Your task to perform on an android device: turn notification dots on Image 0: 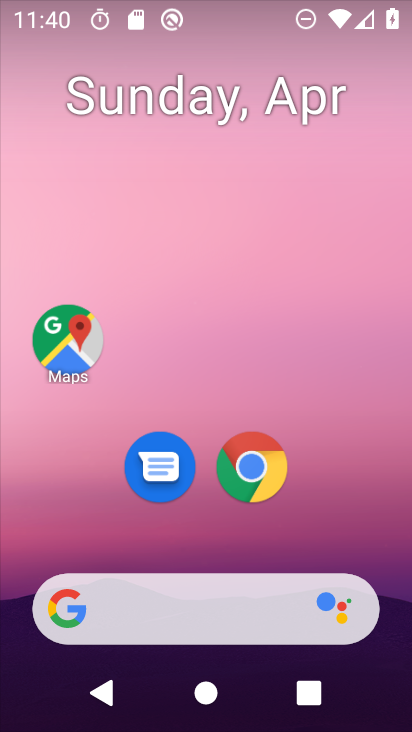
Step 0: drag from (361, 529) to (360, 102)
Your task to perform on an android device: turn notification dots on Image 1: 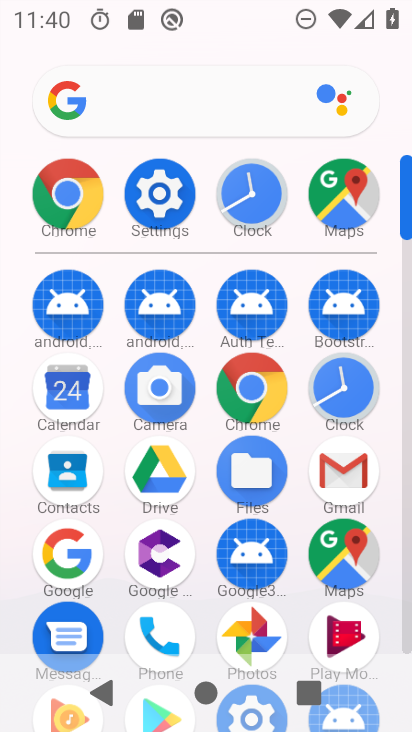
Step 1: click (159, 186)
Your task to perform on an android device: turn notification dots on Image 2: 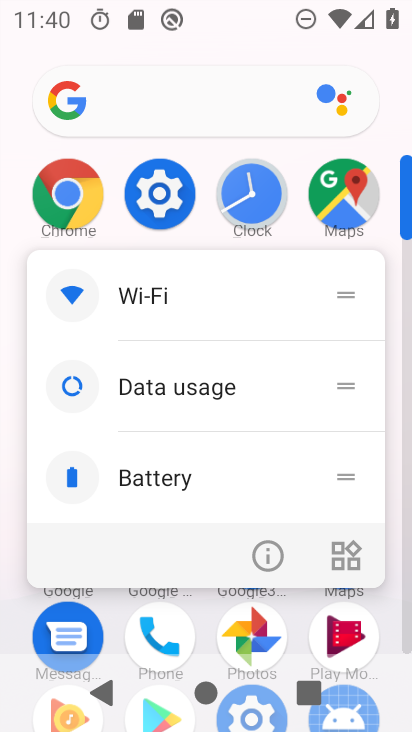
Step 2: click (159, 186)
Your task to perform on an android device: turn notification dots on Image 3: 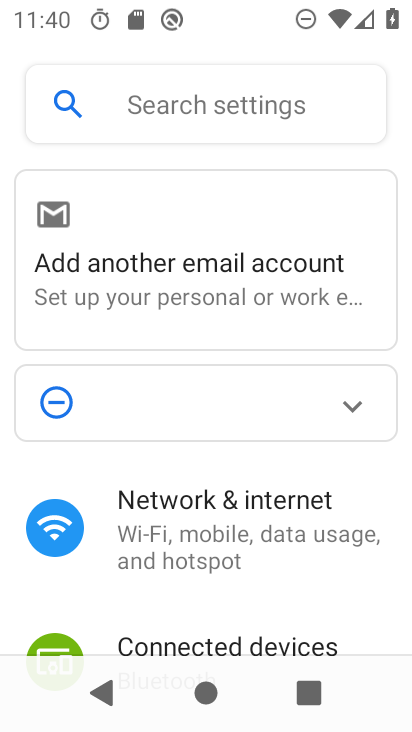
Step 3: drag from (309, 567) to (299, 312)
Your task to perform on an android device: turn notification dots on Image 4: 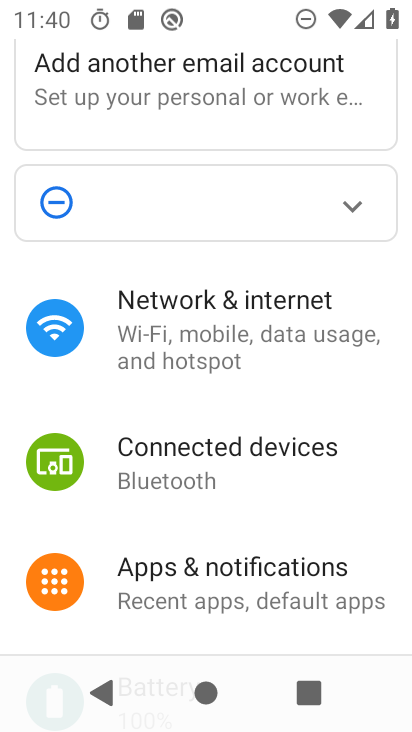
Step 4: drag from (338, 507) to (336, 343)
Your task to perform on an android device: turn notification dots on Image 5: 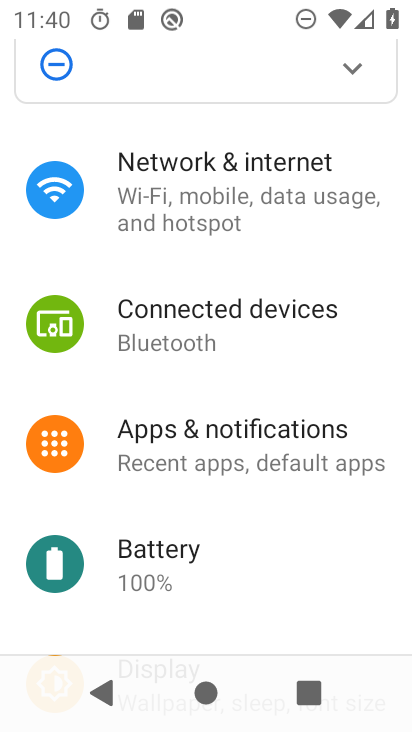
Step 5: drag from (349, 576) to (360, 389)
Your task to perform on an android device: turn notification dots on Image 6: 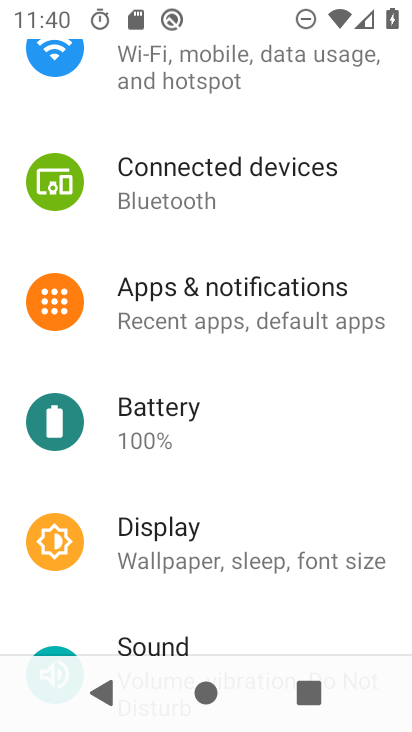
Step 6: drag from (347, 602) to (352, 414)
Your task to perform on an android device: turn notification dots on Image 7: 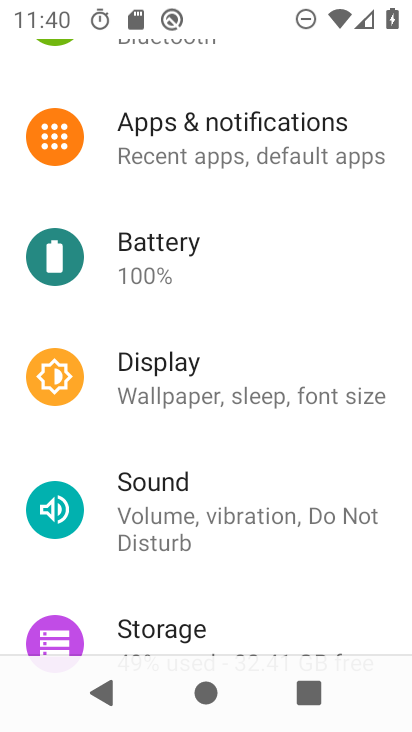
Step 7: drag from (350, 593) to (354, 419)
Your task to perform on an android device: turn notification dots on Image 8: 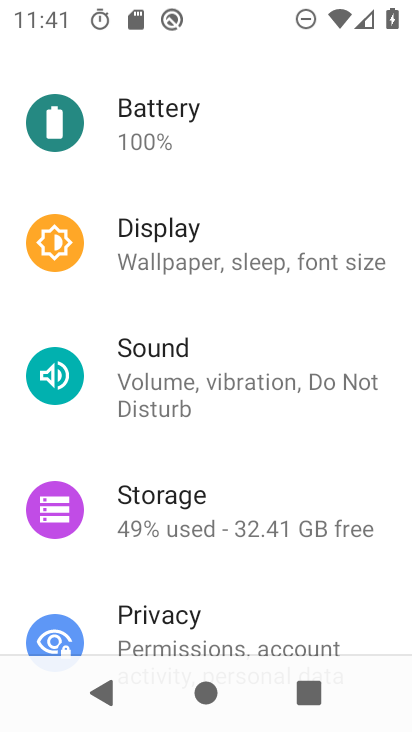
Step 8: drag from (331, 597) to (335, 443)
Your task to perform on an android device: turn notification dots on Image 9: 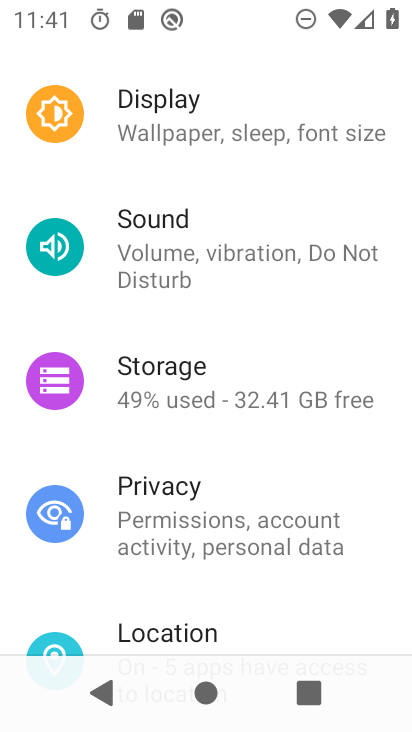
Step 9: drag from (322, 624) to (328, 456)
Your task to perform on an android device: turn notification dots on Image 10: 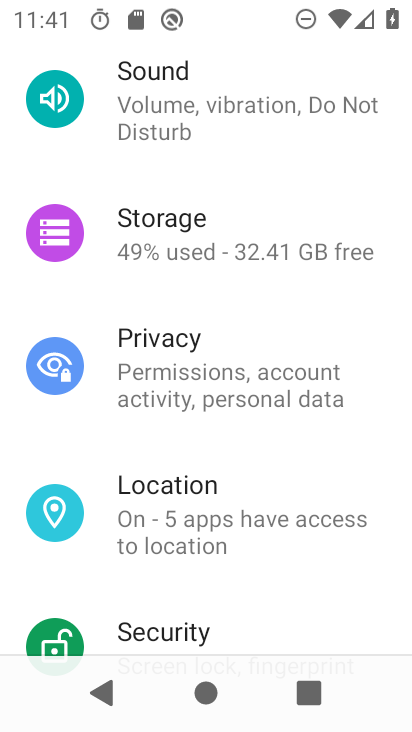
Step 10: drag from (368, 321) to (378, 530)
Your task to perform on an android device: turn notification dots on Image 11: 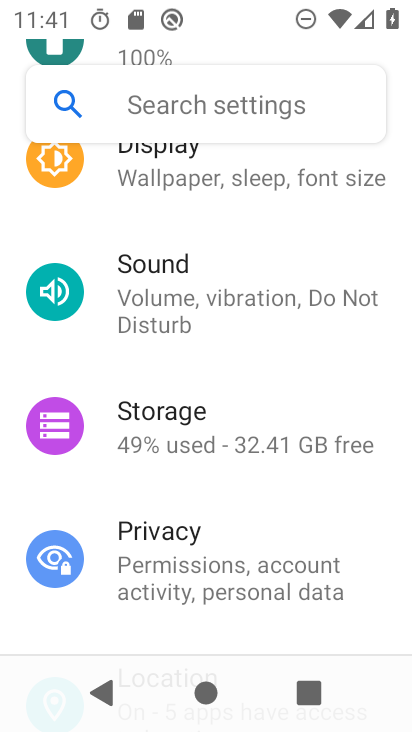
Step 11: drag from (380, 253) to (378, 437)
Your task to perform on an android device: turn notification dots on Image 12: 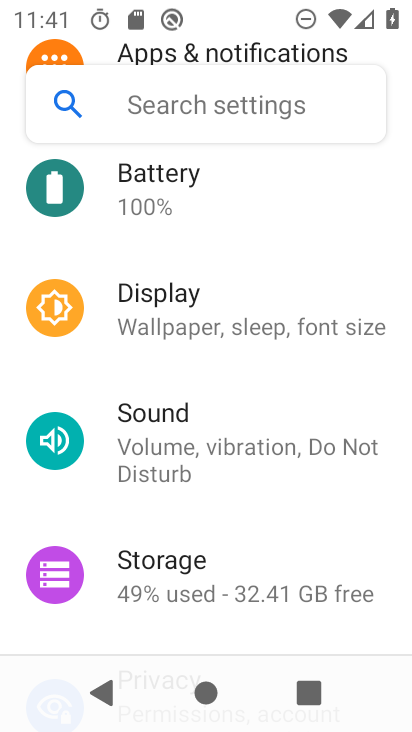
Step 12: drag from (377, 248) to (372, 422)
Your task to perform on an android device: turn notification dots on Image 13: 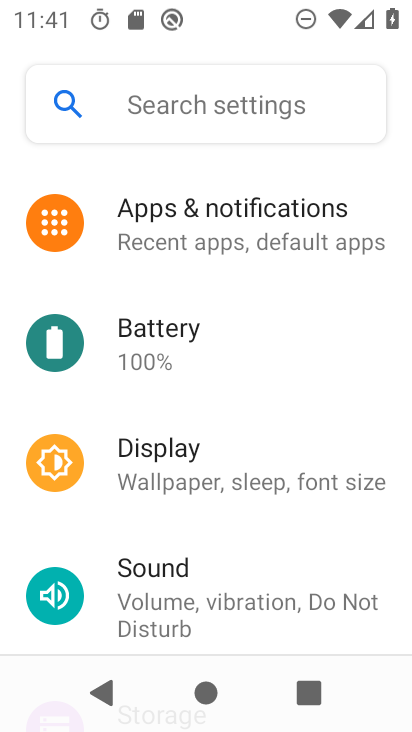
Step 13: drag from (314, 309) to (316, 403)
Your task to perform on an android device: turn notification dots on Image 14: 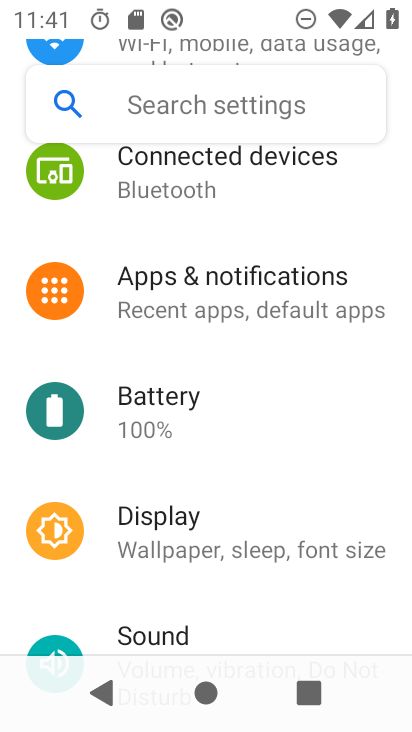
Step 14: click (260, 301)
Your task to perform on an android device: turn notification dots on Image 15: 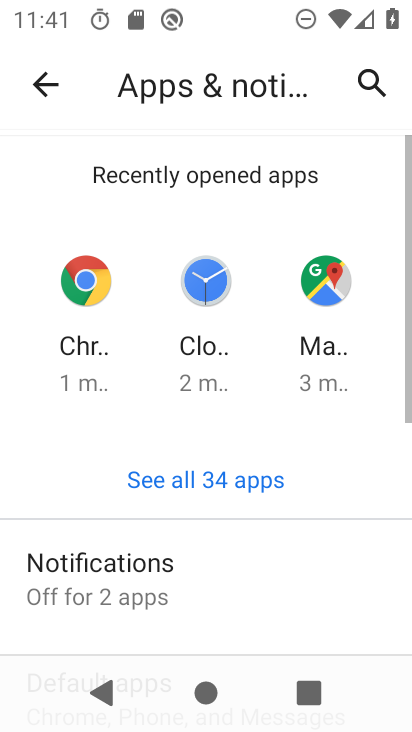
Step 15: drag from (268, 578) to (262, 400)
Your task to perform on an android device: turn notification dots on Image 16: 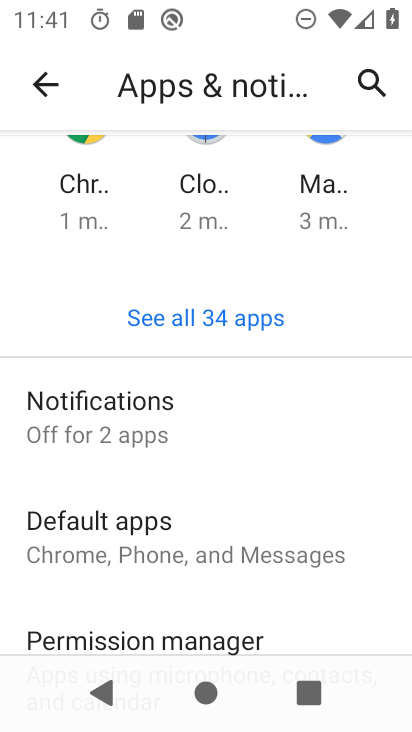
Step 16: click (159, 424)
Your task to perform on an android device: turn notification dots on Image 17: 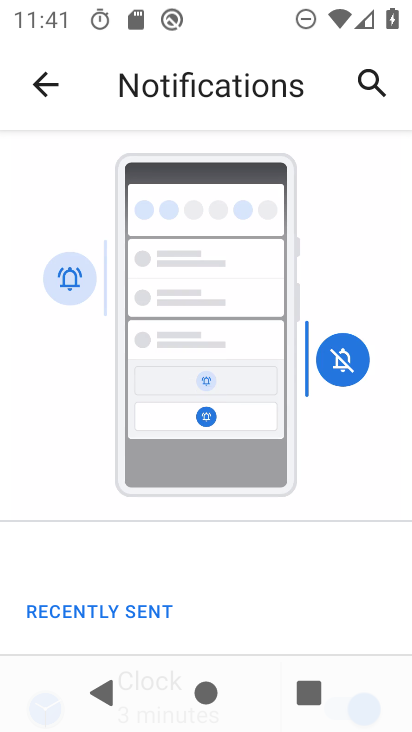
Step 17: drag from (297, 569) to (304, 387)
Your task to perform on an android device: turn notification dots on Image 18: 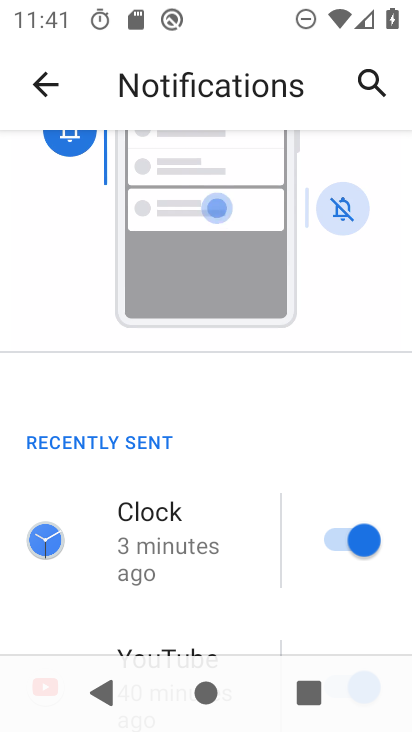
Step 18: drag from (256, 585) to (269, 371)
Your task to perform on an android device: turn notification dots on Image 19: 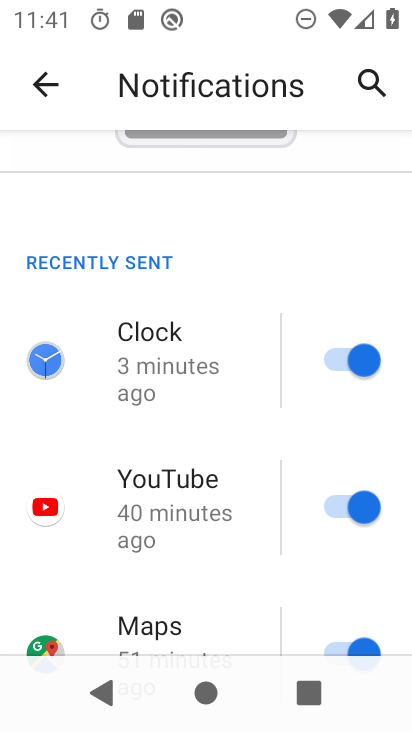
Step 19: drag from (234, 583) to (256, 433)
Your task to perform on an android device: turn notification dots on Image 20: 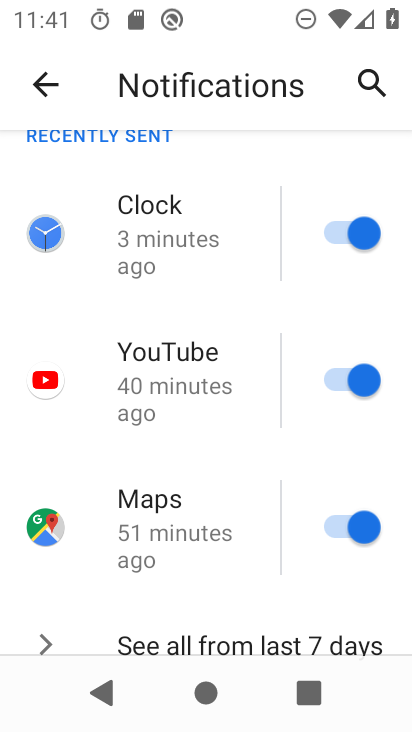
Step 20: drag from (249, 582) to (247, 364)
Your task to perform on an android device: turn notification dots on Image 21: 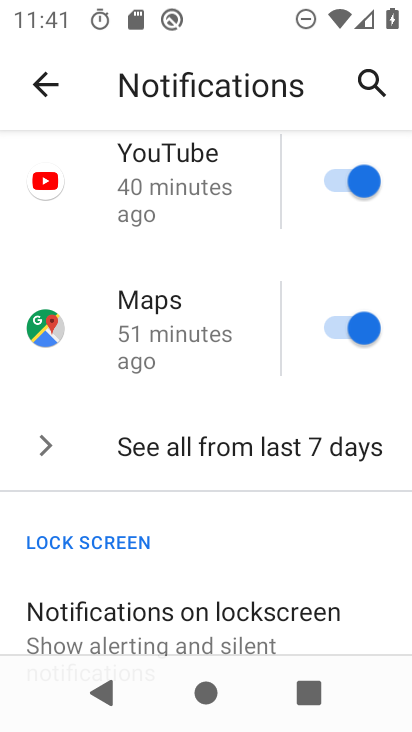
Step 21: drag from (248, 555) to (241, 354)
Your task to perform on an android device: turn notification dots on Image 22: 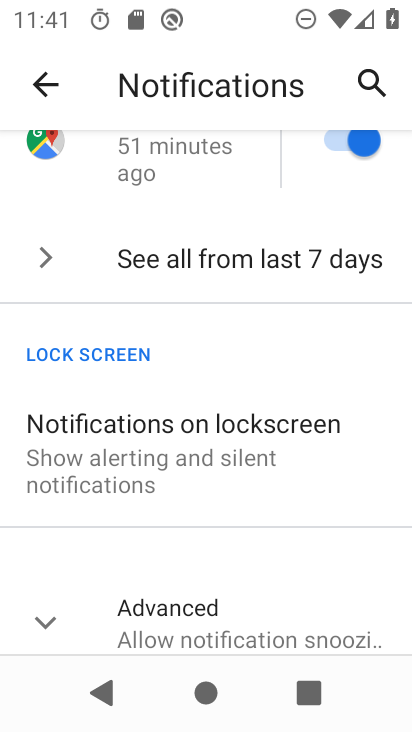
Step 22: drag from (270, 571) to (264, 408)
Your task to perform on an android device: turn notification dots on Image 23: 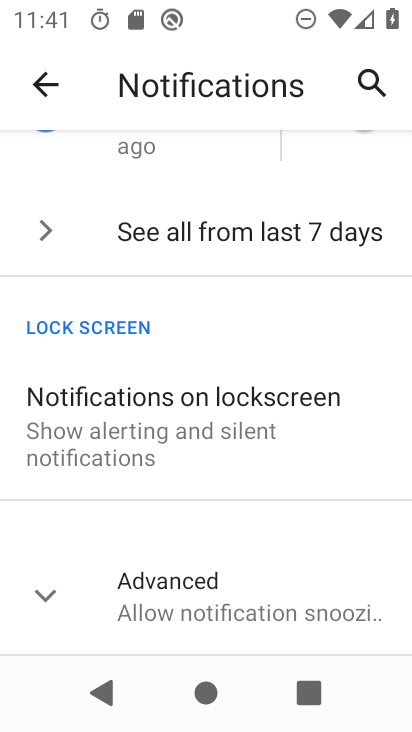
Step 23: click (204, 583)
Your task to perform on an android device: turn notification dots on Image 24: 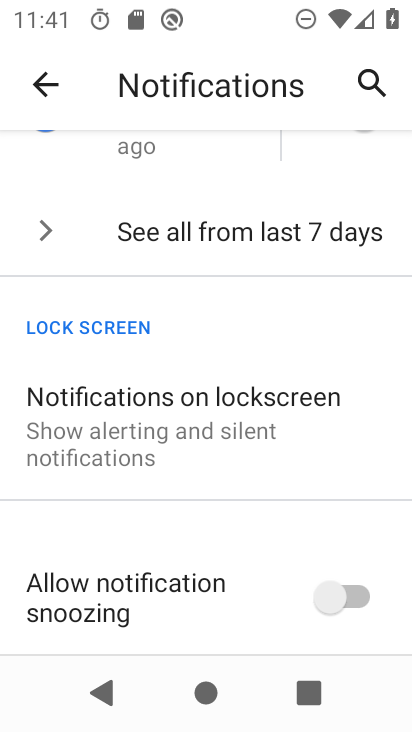
Step 24: drag from (232, 602) to (245, 406)
Your task to perform on an android device: turn notification dots on Image 25: 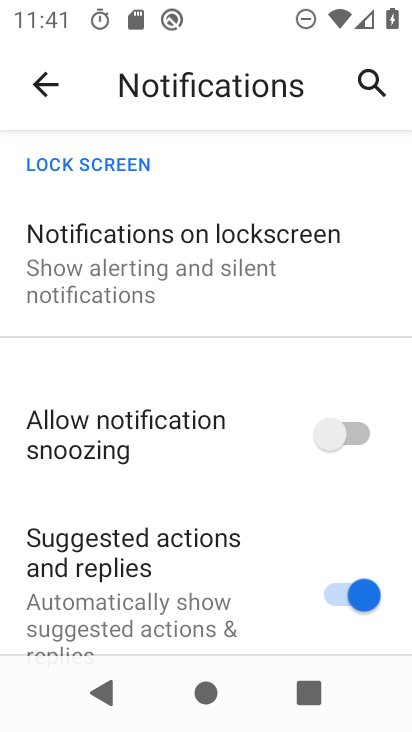
Step 25: drag from (257, 596) to (264, 387)
Your task to perform on an android device: turn notification dots on Image 26: 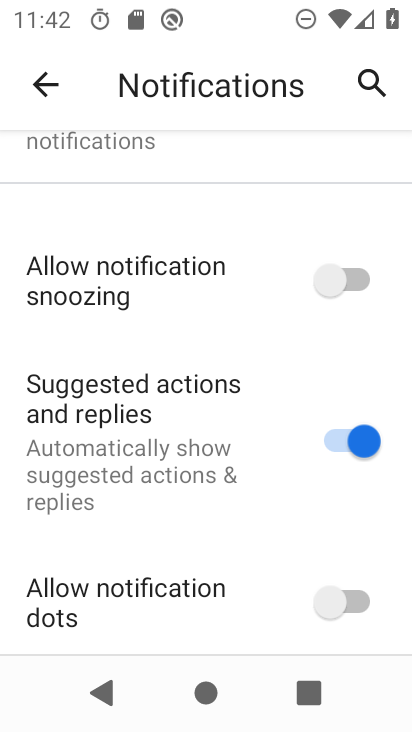
Step 26: drag from (252, 607) to (248, 441)
Your task to perform on an android device: turn notification dots on Image 27: 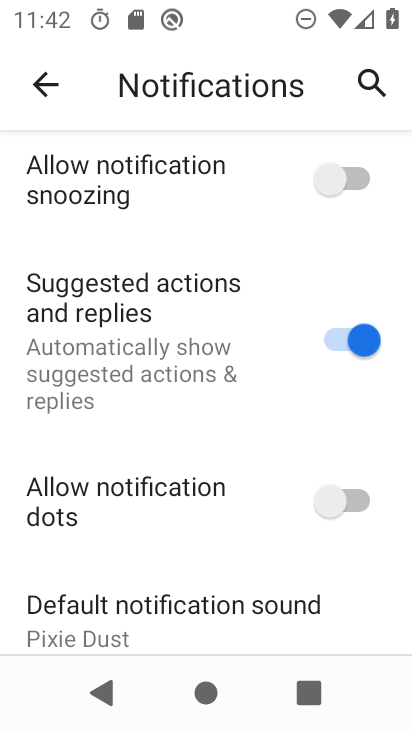
Step 27: click (311, 510)
Your task to perform on an android device: turn notification dots on Image 28: 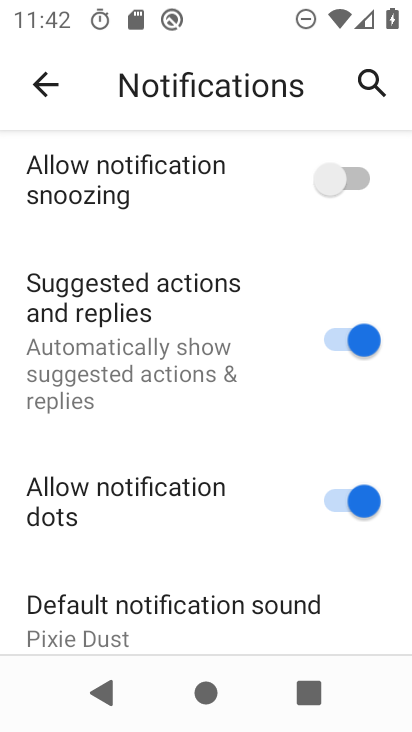
Step 28: task complete